Your task to perform on an android device: Search for vegetarian restaurants on Maps Image 0: 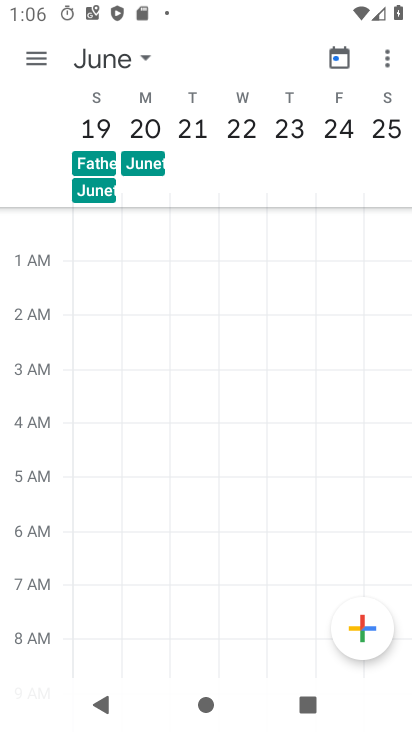
Step 0: press home button
Your task to perform on an android device: Search for vegetarian restaurants on Maps Image 1: 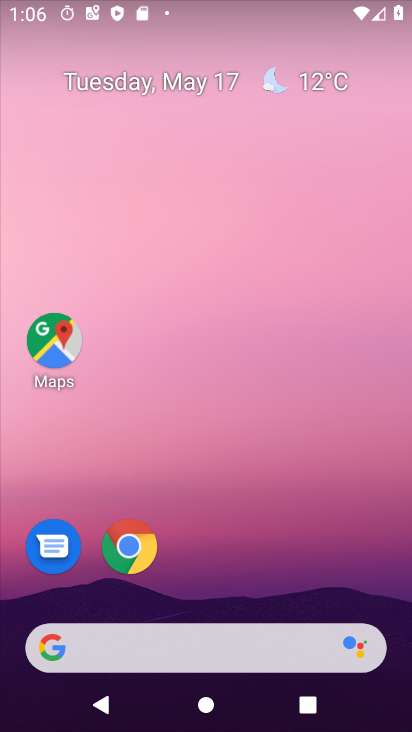
Step 1: click (40, 343)
Your task to perform on an android device: Search for vegetarian restaurants on Maps Image 2: 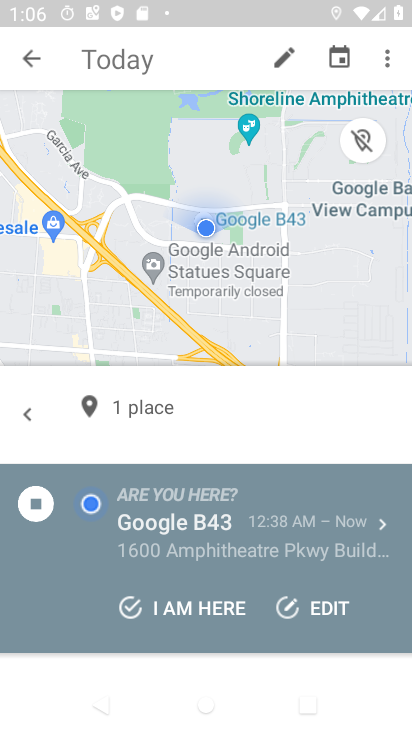
Step 2: click (40, 63)
Your task to perform on an android device: Search for vegetarian restaurants on Maps Image 3: 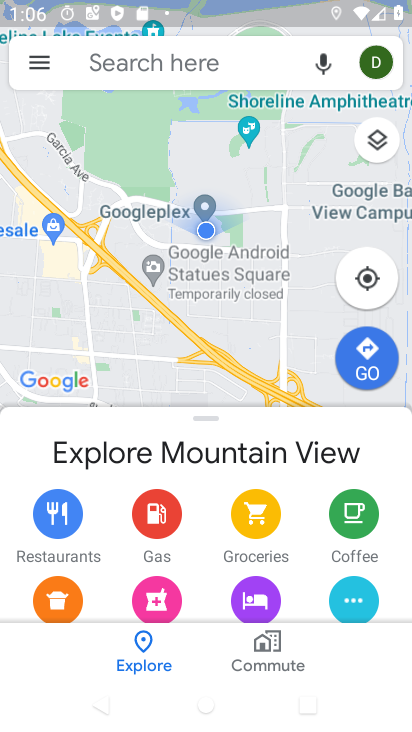
Step 3: click (160, 68)
Your task to perform on an android device: Search for vegetarian restaurants on Maps Image 4: 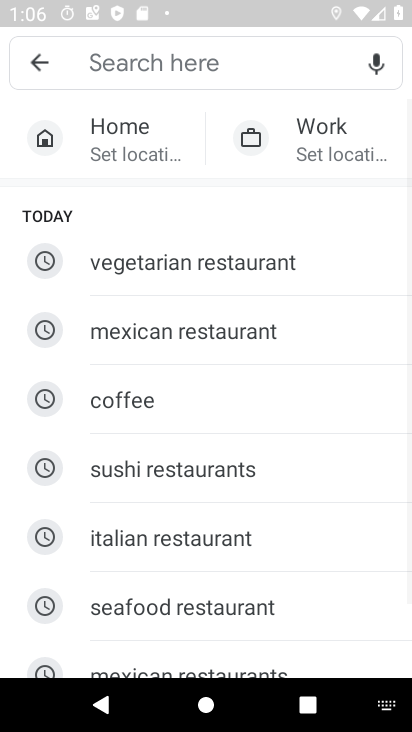
Step 4: click (178, 260)
Your task to perform on an android device: Search for vegetarian restaurants on Maps Image 5: 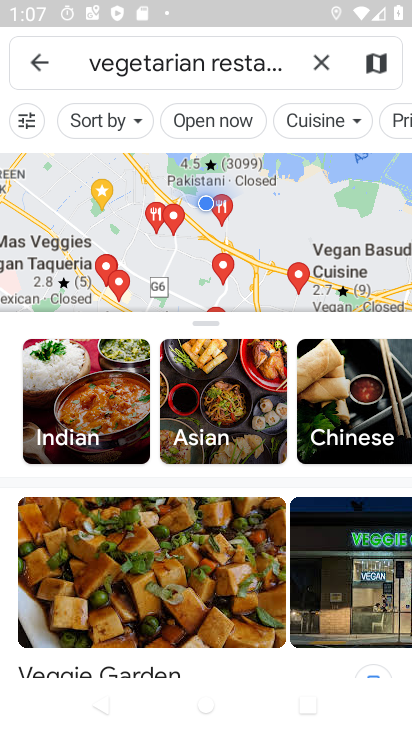
Step 5: task complete